Your task to perform on an android device: Open Google Chrome Image 0: 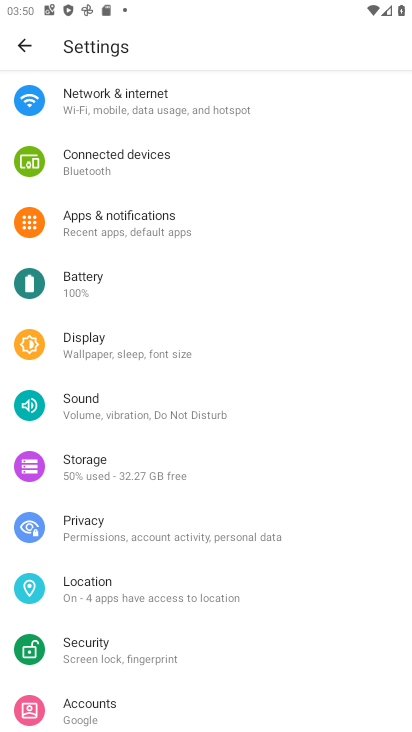
Step 0: press home button
Your task to perform on an android device: Open Google Chrome Image 1: 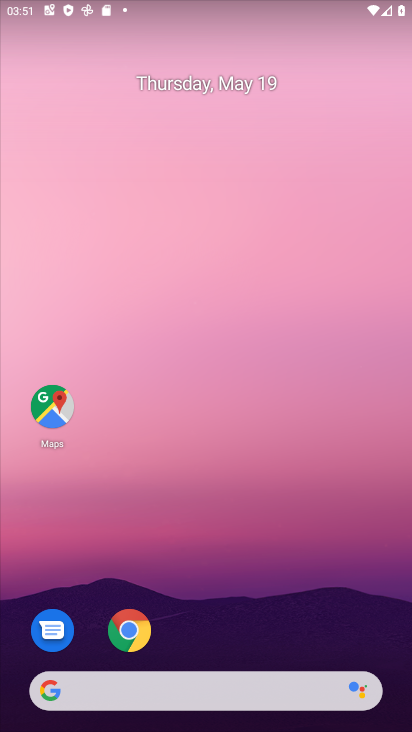
Step 1: click (125, 633)
Your task to perform on an android device: Open Google Chrome Image 2: 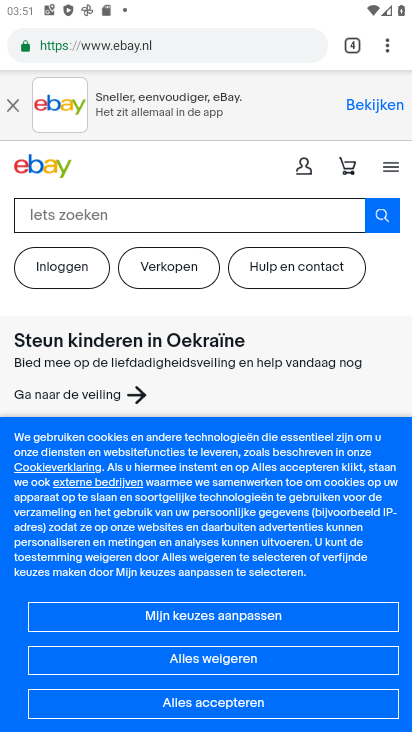
Step 2: task complete